Your task to perform on an android device: open the mobile data screen to see how much data has been used Image 0: 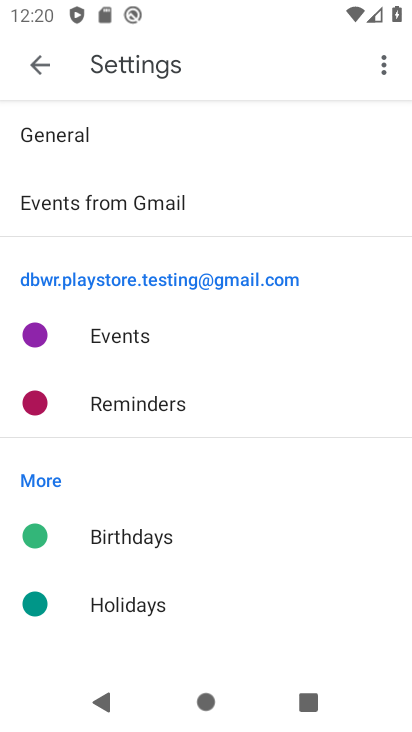
Step 0: press home button
Your task to perform on an android device: open the mobile data screen to see how much data has been used Image 1: 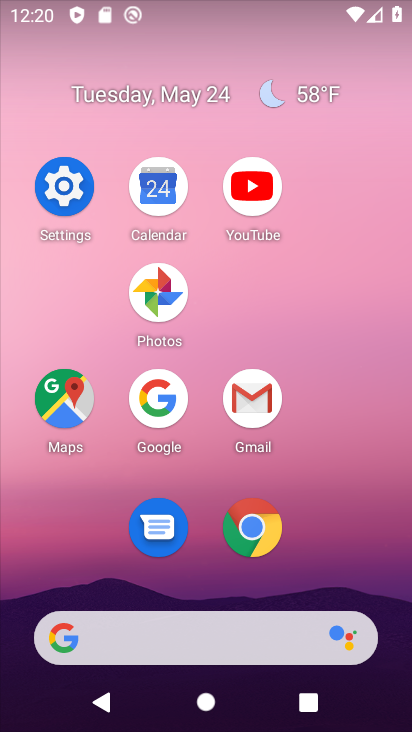
Step 1: click (77, 199)
Your task to perform on an android device: open the mobile data screen to see how much data has been used Image 2: 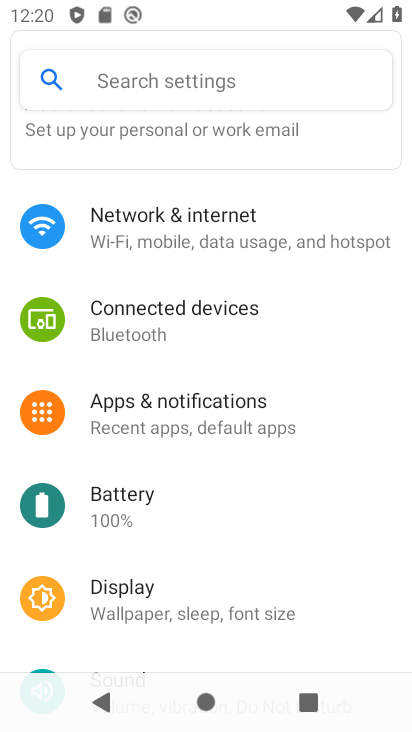
Step 2: click (213, 251)
Your task to perform on an android device: open the mobile data screen to see how much data has been used Image 3: 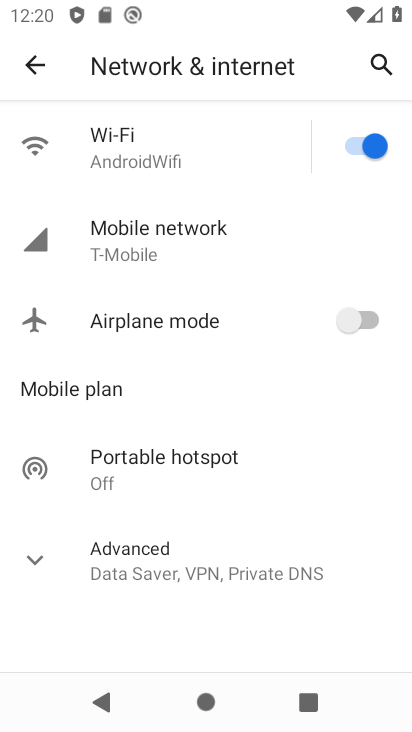
Step 3: click (172, 243)
Your task to perform on an android device: open the mobile data screen to see how much data has been used Image 4: 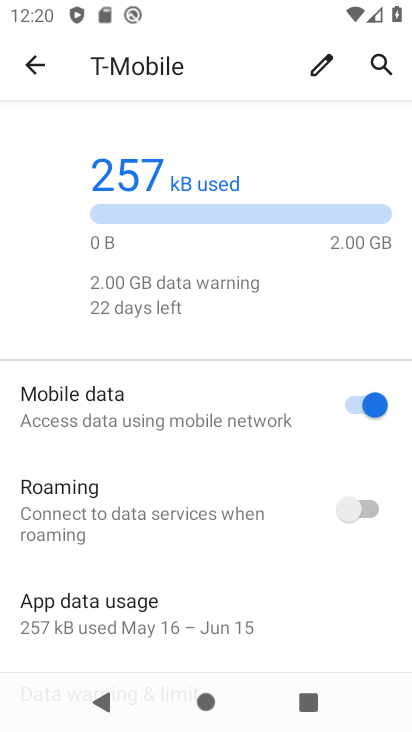
Step 4: task complete